Your task to perform on an android device: Is it going to rain today? Image 0: 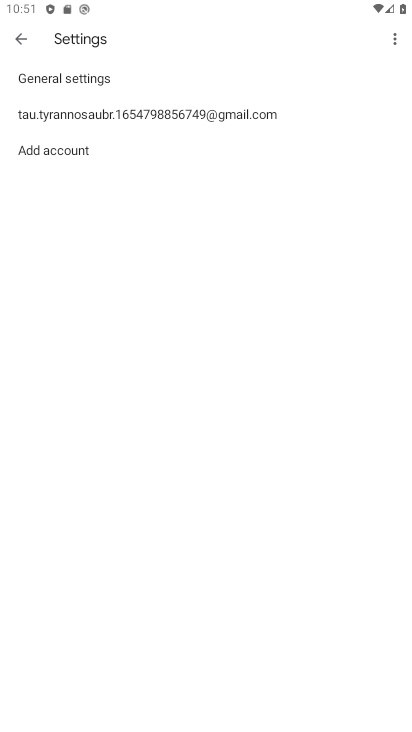
Step 0: press home button
Your task to perform on an android device: Is it going to rain today? Image 1: 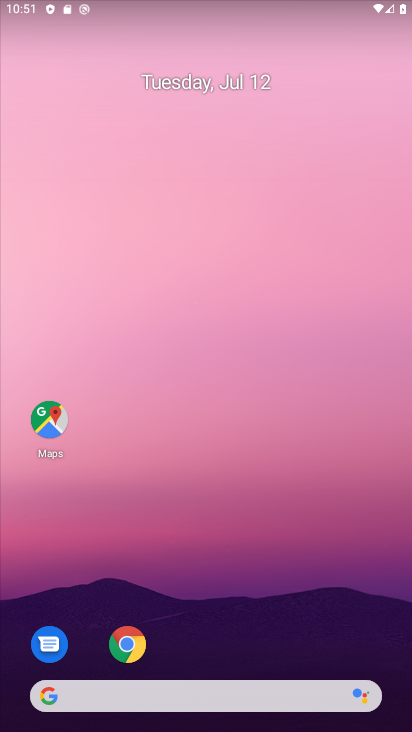
Step 1: drag from (142, 649) to (150, 456)
Your task to perform on an android device: Is it going to rain today? Image 2: 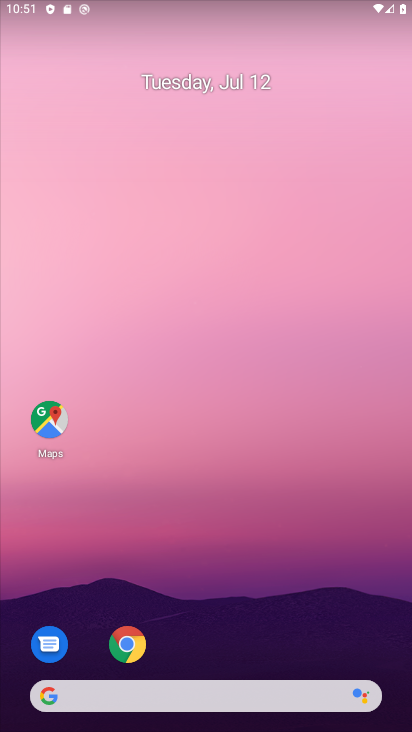
Step 2: drag from (145, 681) to (172, 188)
Your task to perform on an android device: Is it going to rain today? Image 3: 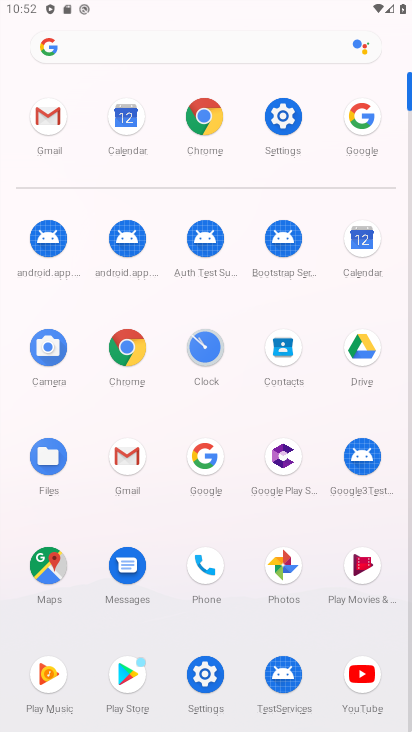
Step 3: click (207, 455)
Your task to perform on an android device: Is it going to rain today? Image 4: 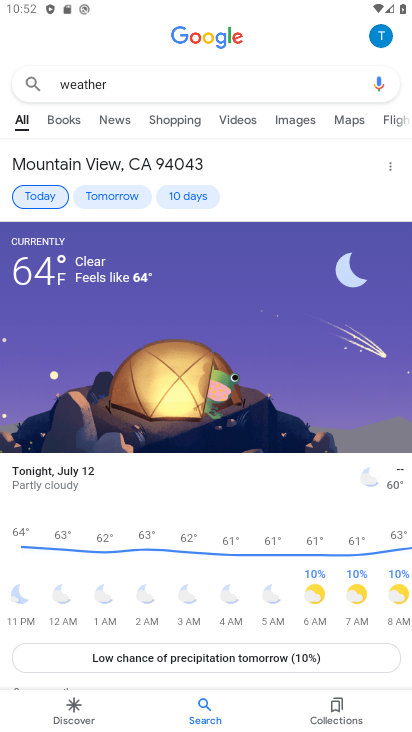
Step 4: task complete